Your task to perform on an android device: Search for Mexican restaurants on Maps Image 0: 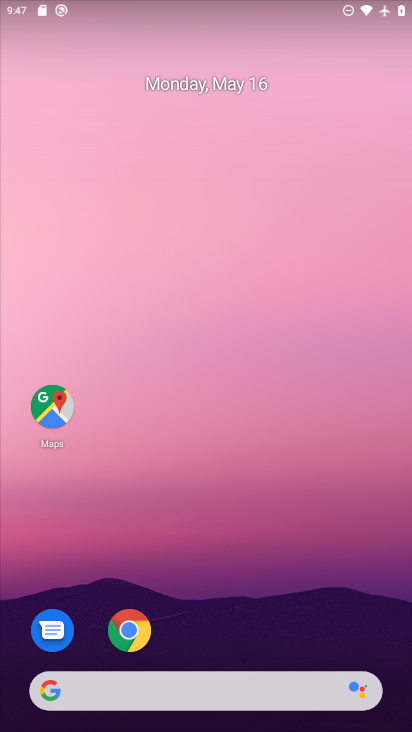
Step 0: click (34, 392)
Your task to perform on an android device: Search for Mexican restaurants on Maps Image 1: 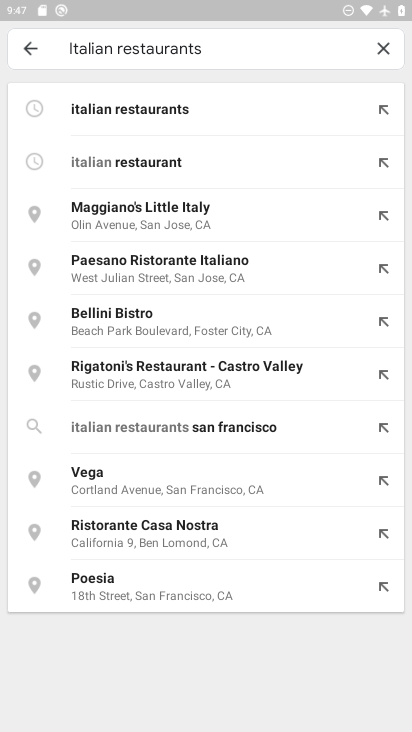
Step 1: click (376, 47)
Your task to perform on an android device: Search for Mexican restaurants on Maps Image 2: 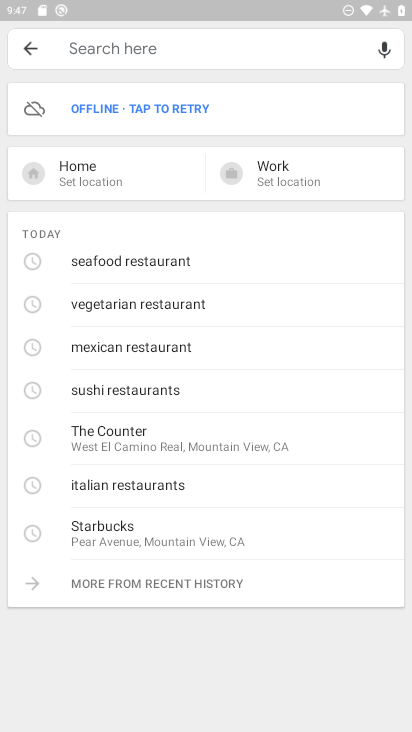
Step 2: click (177, 45)
Your task to perform on an android device: Search for Mexican restaurants on Maps Image 3: 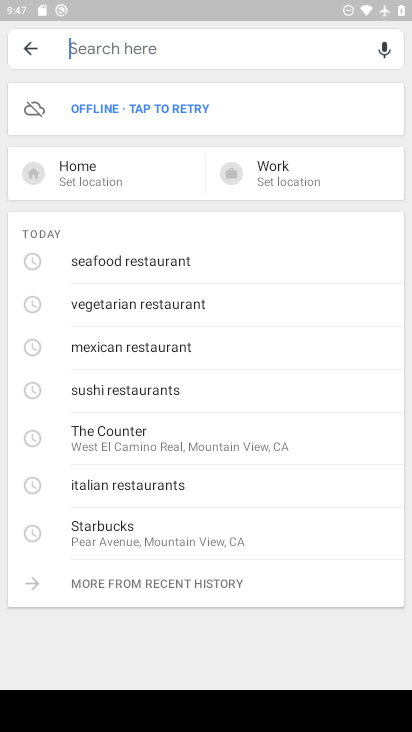
Step 3: type "Mexican restaurants"
Your task to perform on an android device: Search for Mexican restaurants on Maps Image 4: 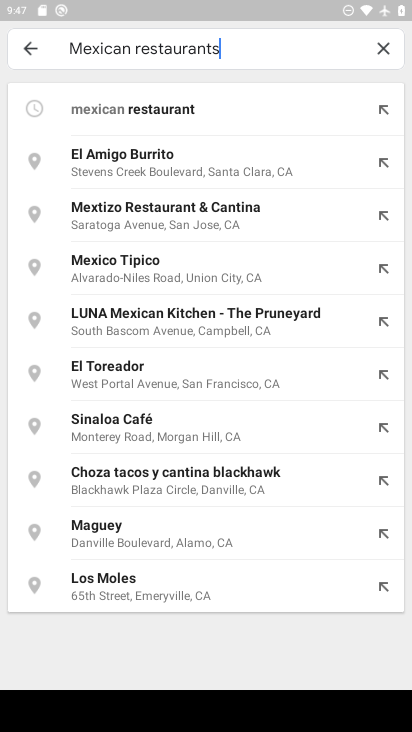
Step 4: click (140, 104)
Your task to perform on an android device: Search for Mexican restaurants on Maps Image 5: 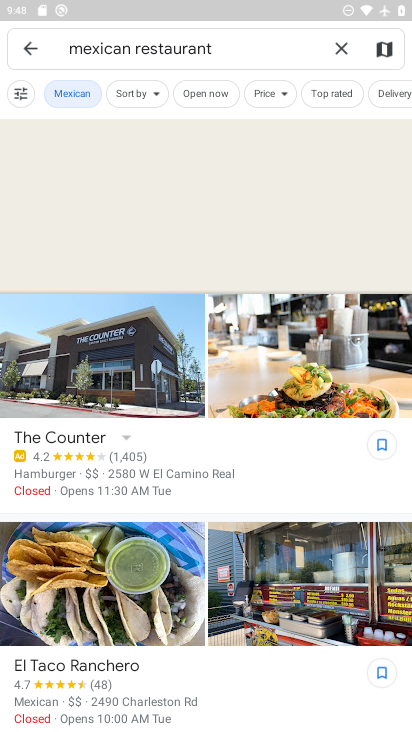
Step 5: task complete